Your task to perform on an android device: Search for Italian restaurants on Maps Image 0: 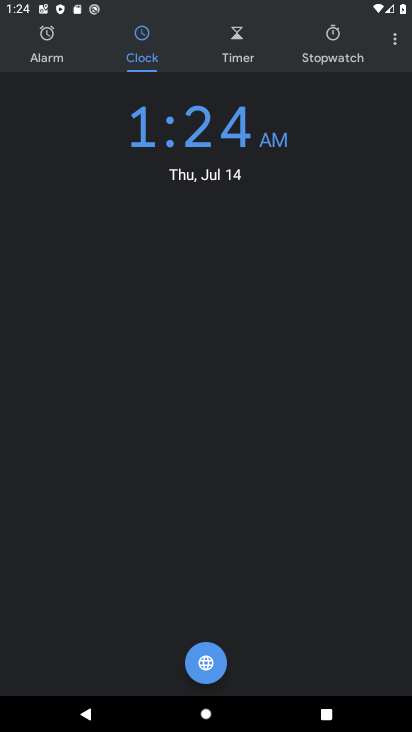
Step 0: press home button
Your task to perform on an android device: Search for Italian restaurants on Maps Image 1: 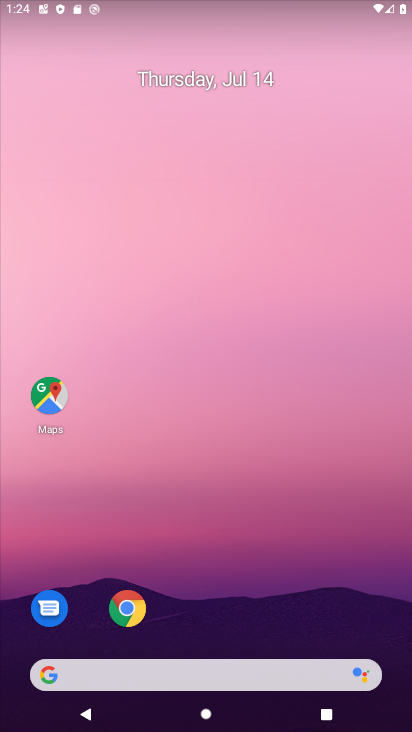
Step 1: click (45, 393)
Your task to perform on an android device: Search for Italian restaurants on Maps Image 2: 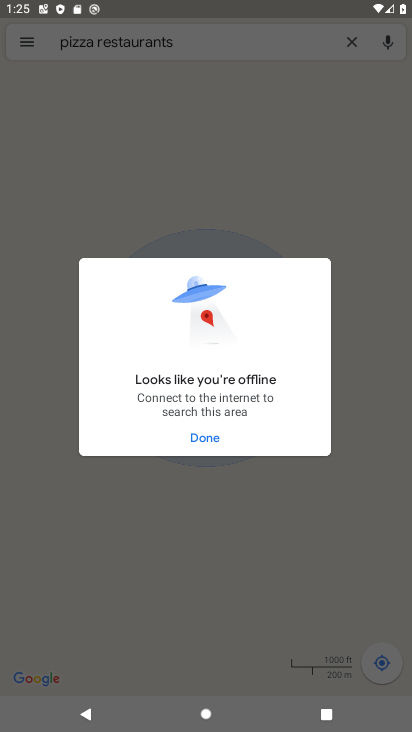
Step 2: click (196, 439)
Your task to perform on an android device: Search for Italian restaurants on Maps Image 3: 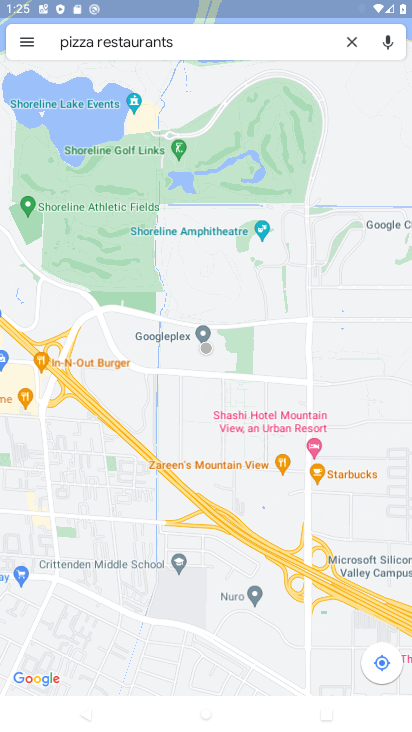
Step 3: click (344, 40)
Your task to perform on an android device: Search for Italian restaurants on Maps Image 4: 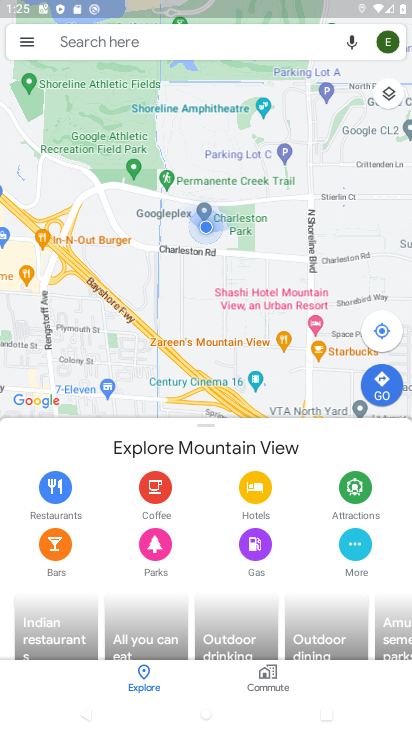
Step 4: click (130, 46)
Your task to perform on an android device: Search for Italian restaurants on Maps Image 5: 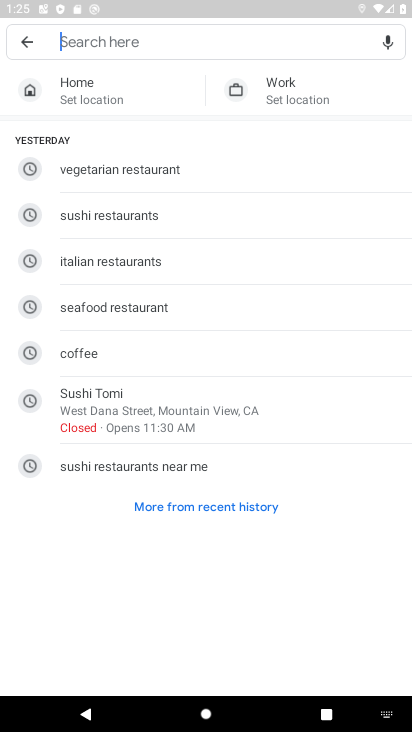
Step 5: type "italian restaurants"
Your task to perform on an android device: Search for Italian restaurants on Maps Image 6: 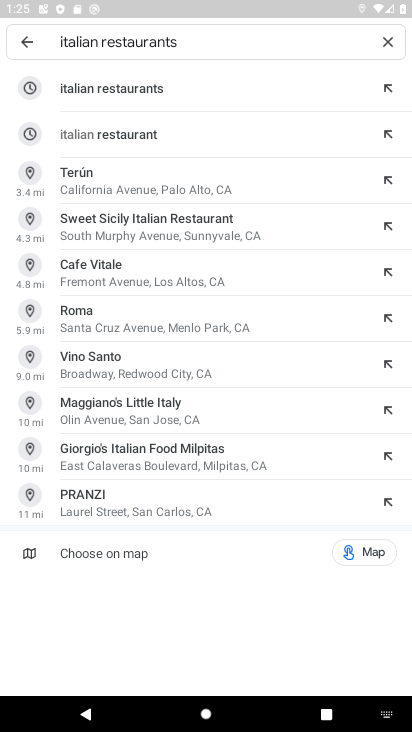
Step 6: click (81, 85)
Your task to perform on an android device: Search for Italian restaurants on Maps Image 7: 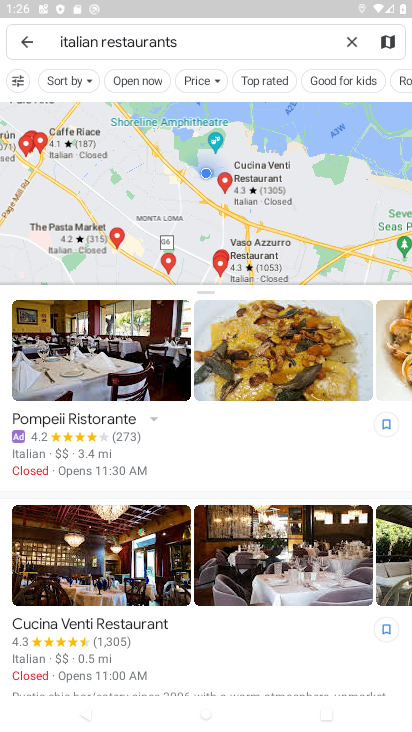
Step 7: task complete